Your task to perform on an android device: Turn off the flashlight Image 0: 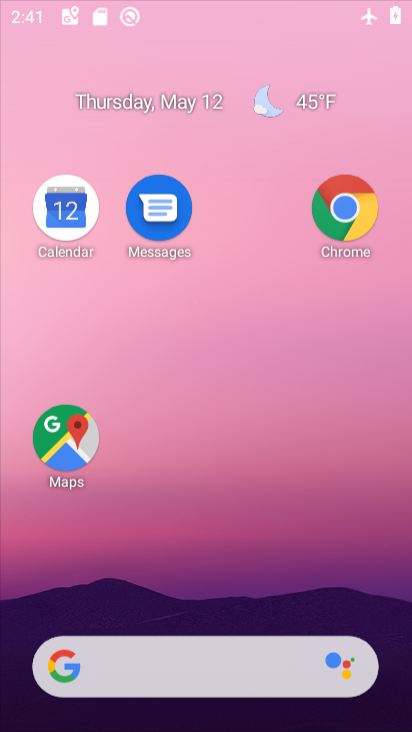
Step 0: click (351, 188)
Your task to perform on an android device: Turn off the flashlight Image 1: 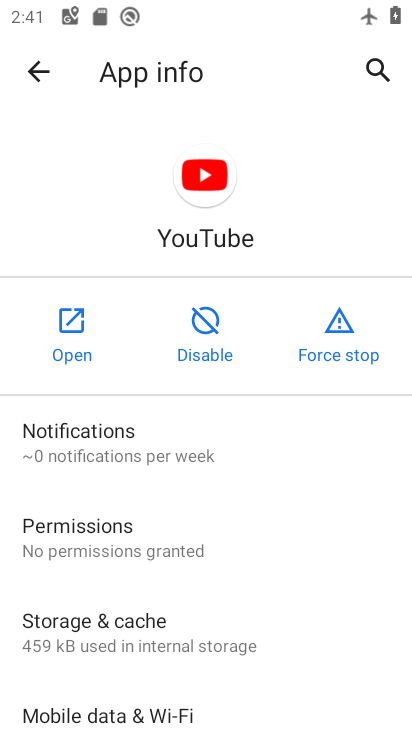
Step 1: click (64, 338)
Your task to perform on an android device: Turn off the flashlight Image 2: 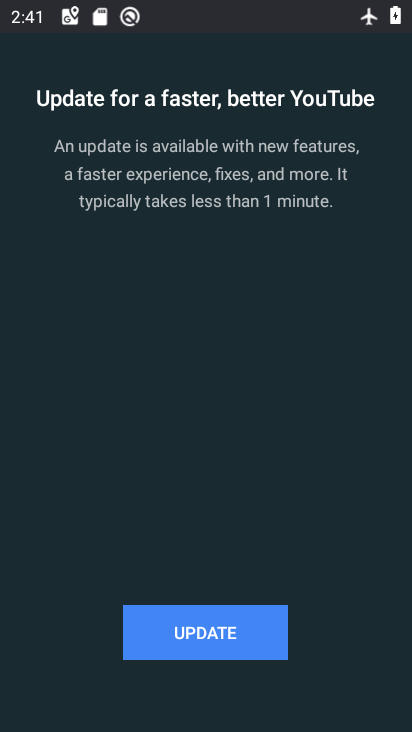
Step 2: press back button
Your task to perform on an android device: Turn off the flashlight Image 3: 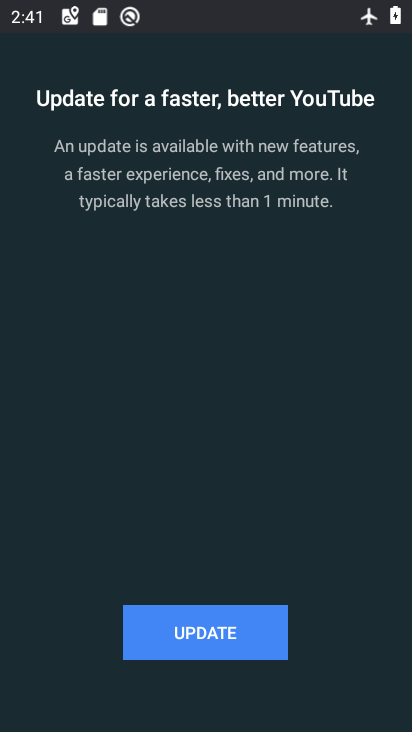
Step 3: press back button
Your task to perform on an android device: Turn off the flashlight Image 4: 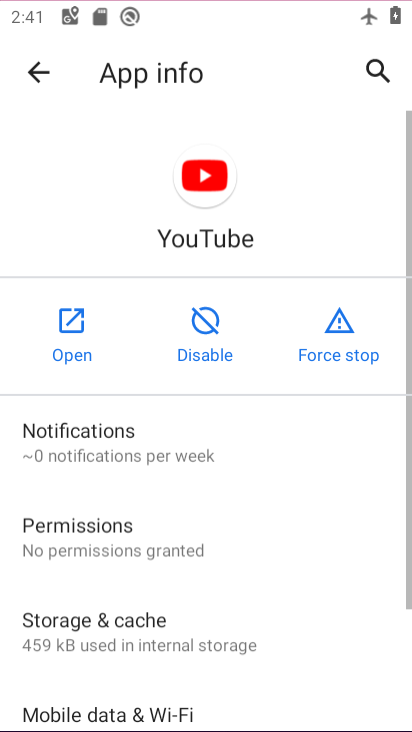
Step 4: press home button
Your task to perform on an android device: Turn off the flashlight Image 5: 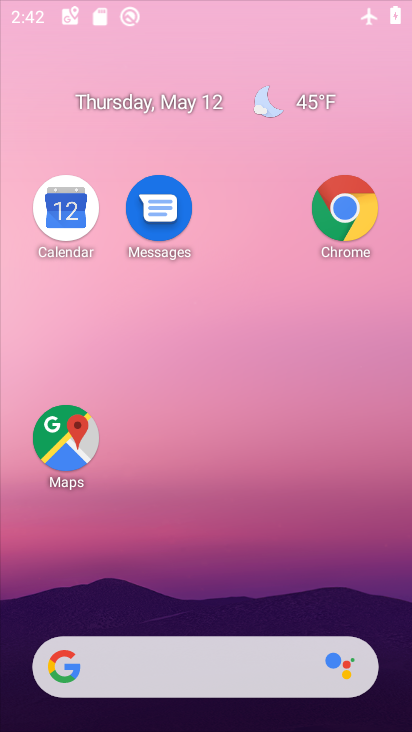
Step 5: press home button
Your task to perform on an android device: Turn off the flashlight Image 6: 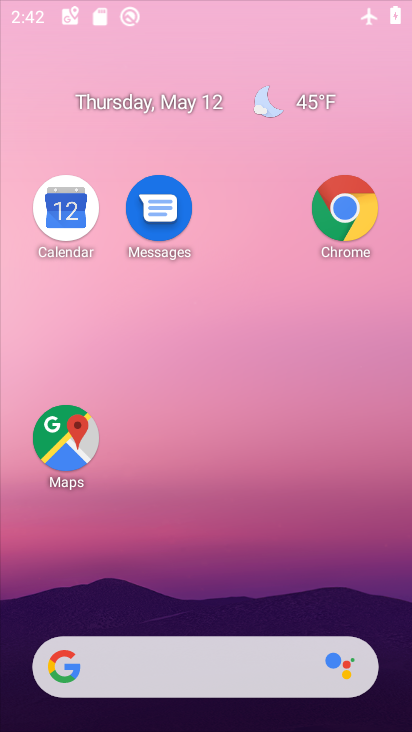
Step 6: click (246, 348)
Your task to perform on an android device: Turn off the flashlight Image 7: 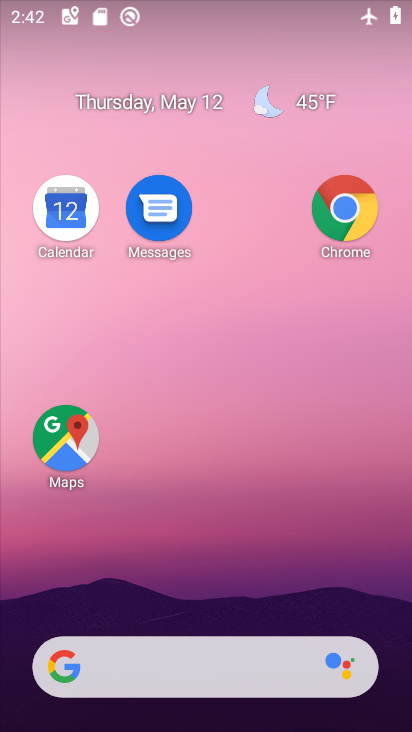
Step 7: drag from (218, 531) to (272, 134)
Your task to perform on an android device: Turn off the flashlight Image 8: 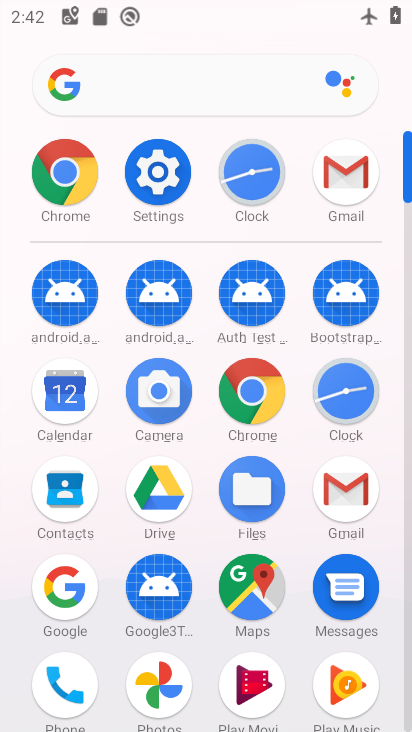
Step 8: click (167, 195)
Your task to perform on an android device: Turn off the flashlight Image 9: 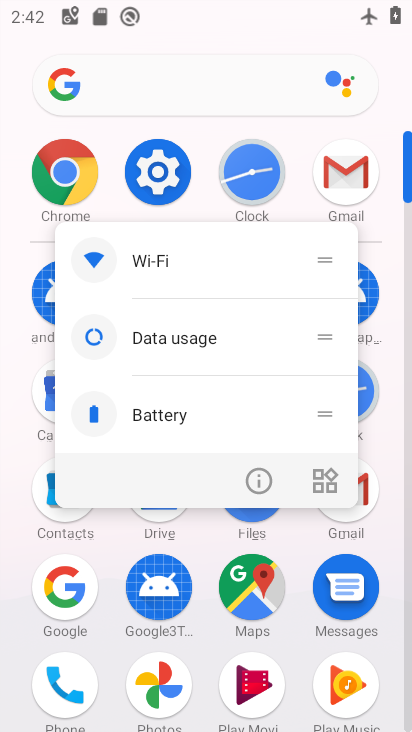
Step 9: click (256, 477)
Your task to perform on an android device: Turn off the flashlight Image 10: 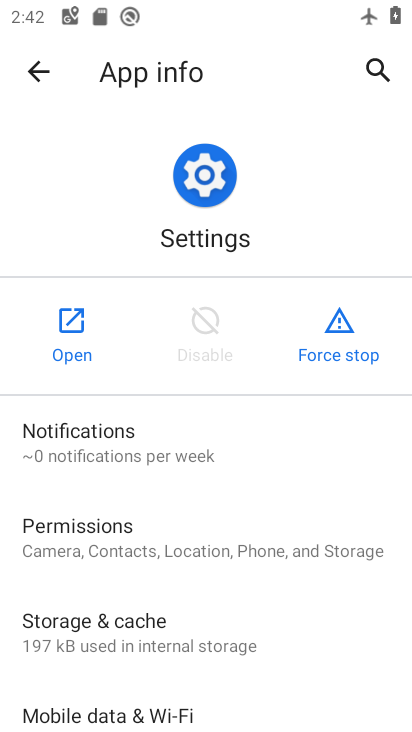
Step 10: click (92, 337)
Your task to perform on an android device: Turn off the flashlight Image 11: 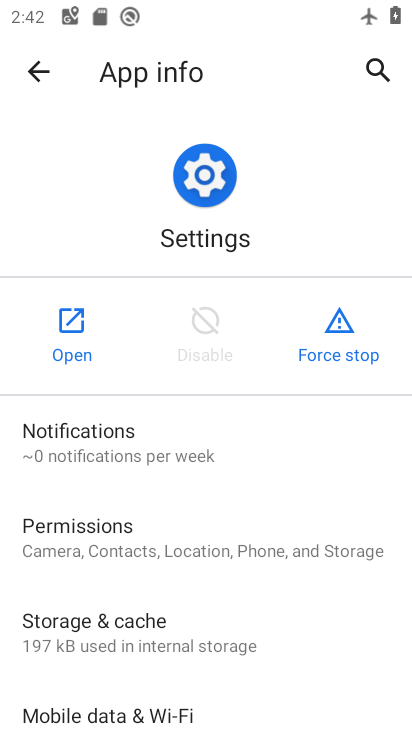
Step 11: click (92, 336)
Your task to perform on an android device: Turn off the flashlight Image 12: 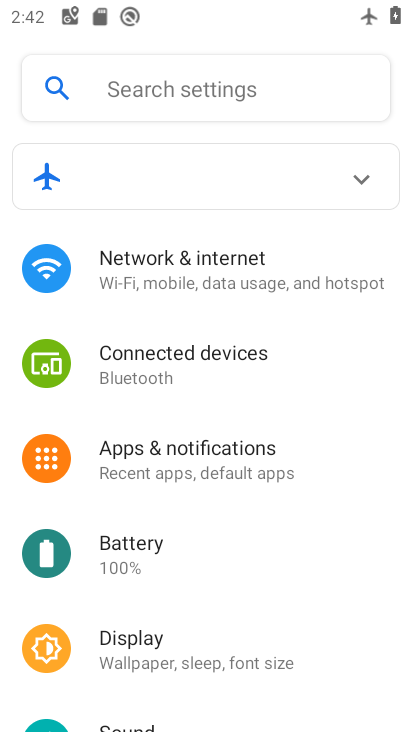
Step 12: click (186, 66)
Your task to perform on an android device: Turn off the flashlight Image 13: 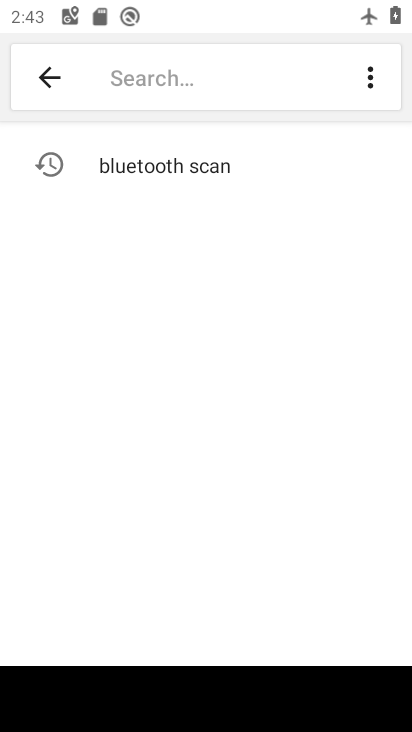
Step 13: type "flashlight"
Your task to perform on an android device: Turn off the flashlight Image 14: 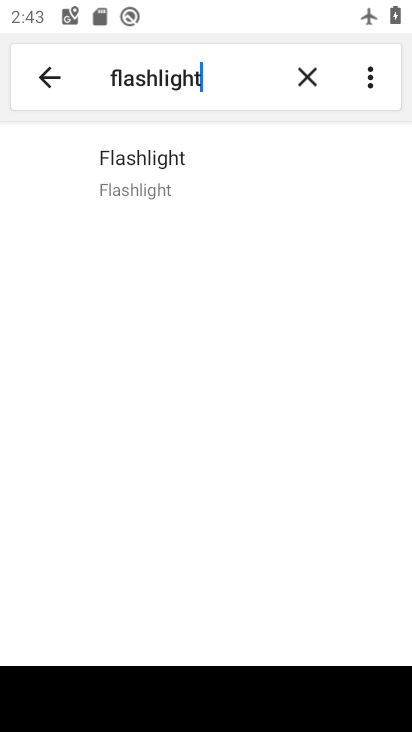
Step 14: click (213, 165)
Your task to perform on an android device: Turn off the flashlight Image 15: 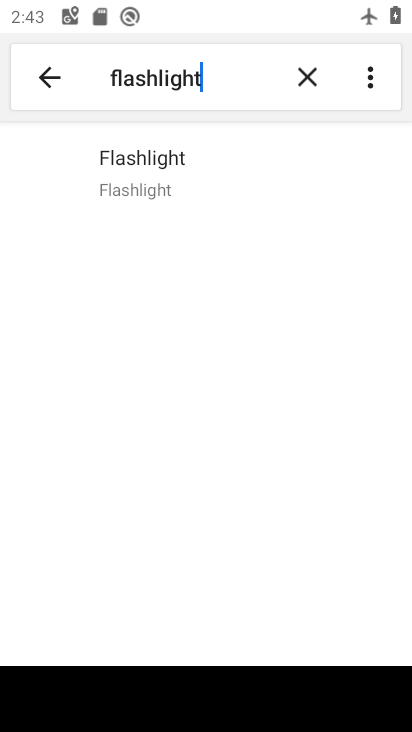
Step 15: click (229, 197)
Your task to perform on an android device: Turn off the flashlight Image 16: 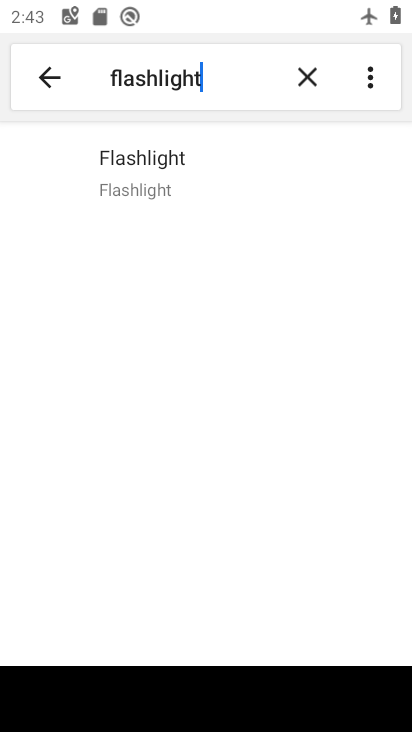
Step 16: click (229, 197)
Your task to perform on an android device: Turn off the flashlight Image 17: 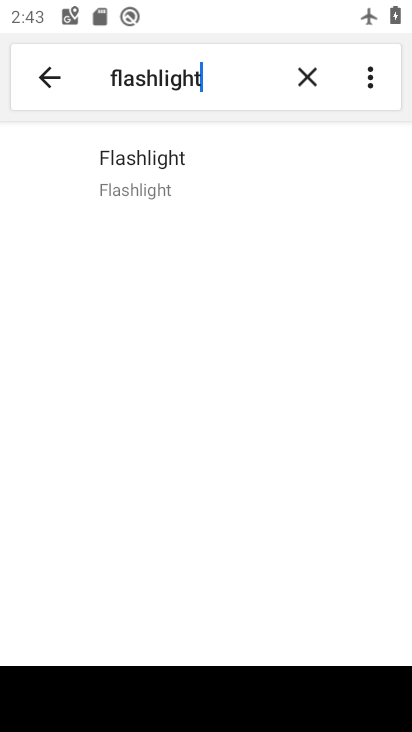
Step 17: click (181, 191)
Your task to perform on an android device: Turn off the flashlight Image 18: 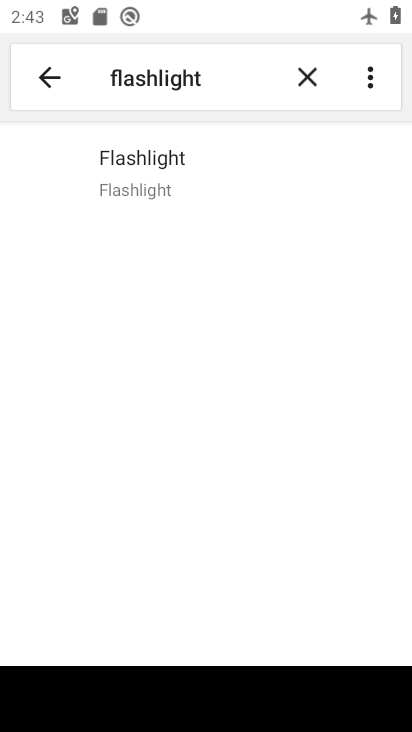
Step 18: click (160, 161)
Your task to perform on an android device: Turn off the flashlight Image 19: 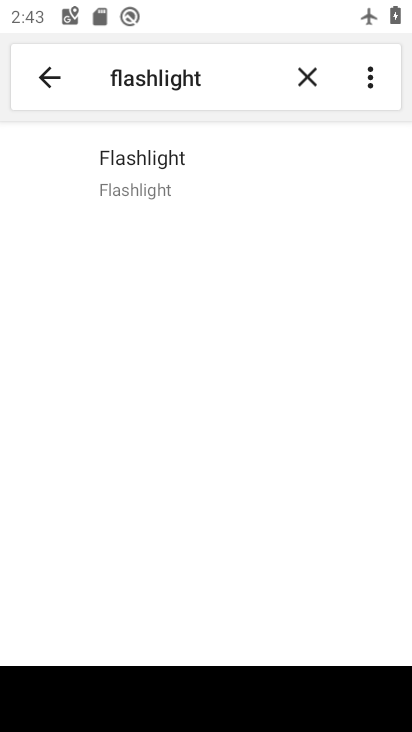
Step 19: click (160, 161)
Your task to perform on an android device: Turn off the flashlight Image 20: 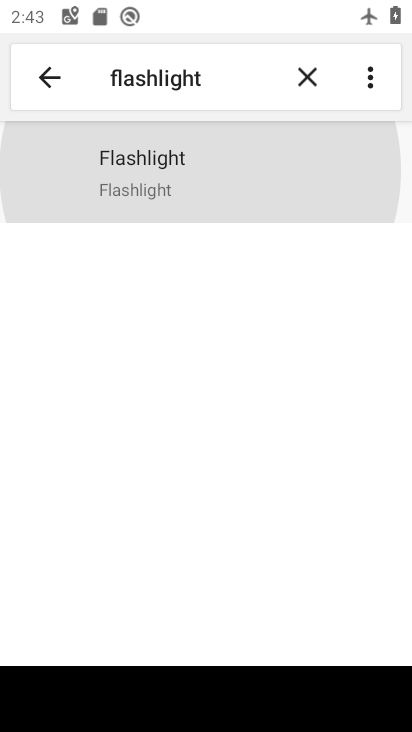
Step 20: click (160, 161)
Your task to perform on an android device: Turn off the flashlight Image 21: 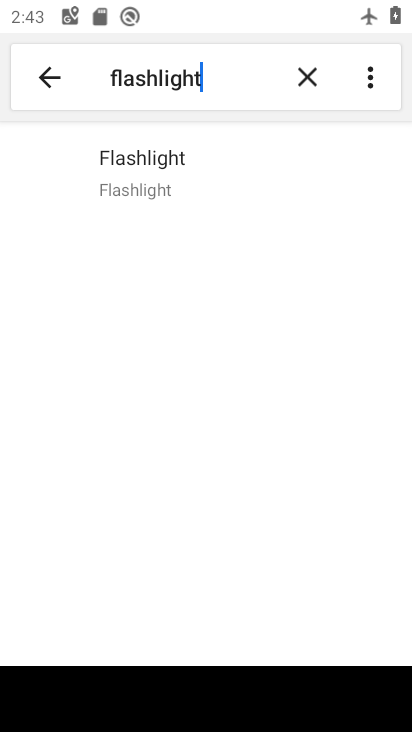
Step 21: task complete